Your task to perform on an android device: Show the shopping cart on walmart.com. Add acer nitro to the cart on walmart.com Image 0: 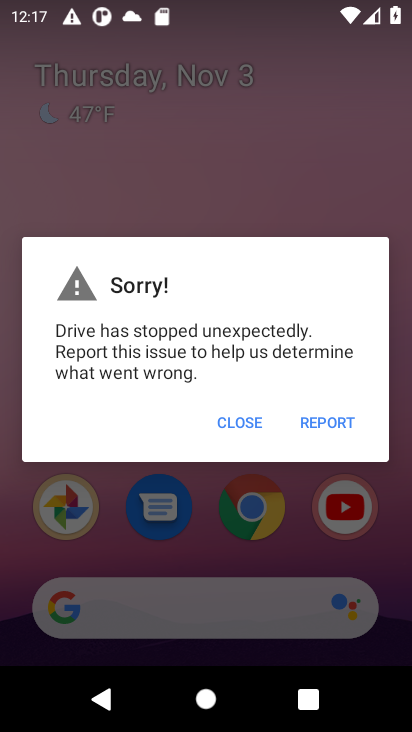
Step 0: task complete